Your task to perform on an android device: Is it going to rain today? Image 0: 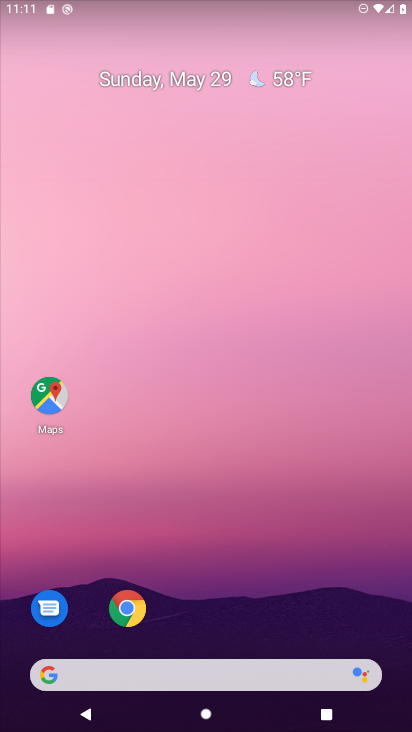
Step 0: drag from (226, 657) to (229, 211)
Your task to perform on an android device: Is it going to rain today? Image 1: 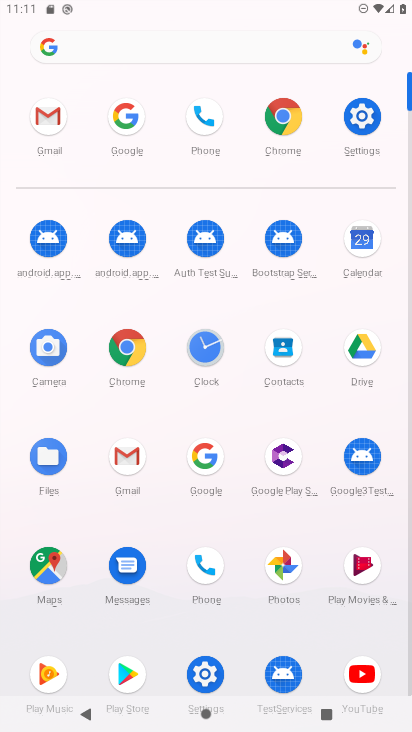
Step 1: click (128, 113)
Your task to perform on an android device: Is it going to rain today? Image 2: 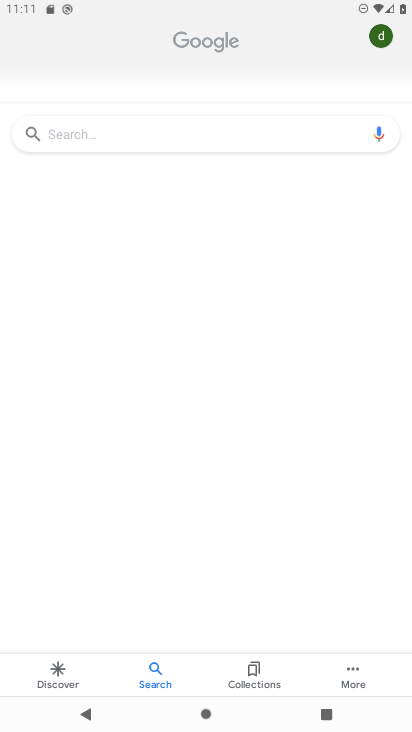
Step 2: click (142, 126)
Your task to perform on an android device: Is it going to rain today? Image 3: 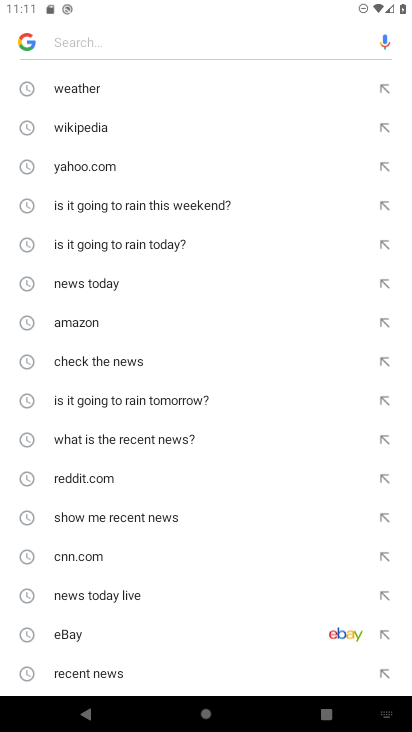
Step 3: click (139, 241)
Your task to perform on an android device: Is it going to rain today? Image 4: 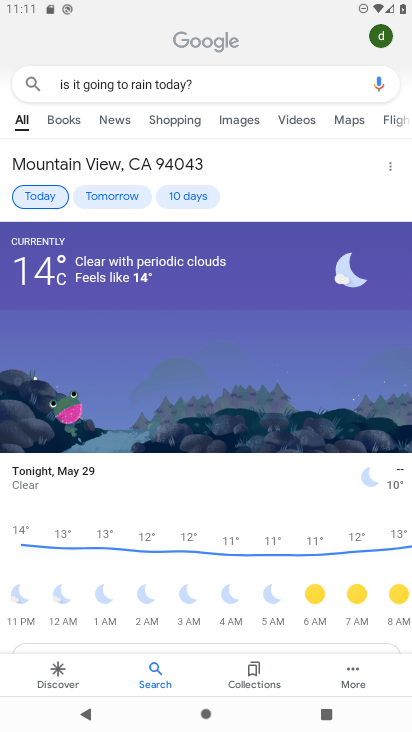
Step 4: task complete